Your task to perform on an android device: Open Wikipedia Image 0: 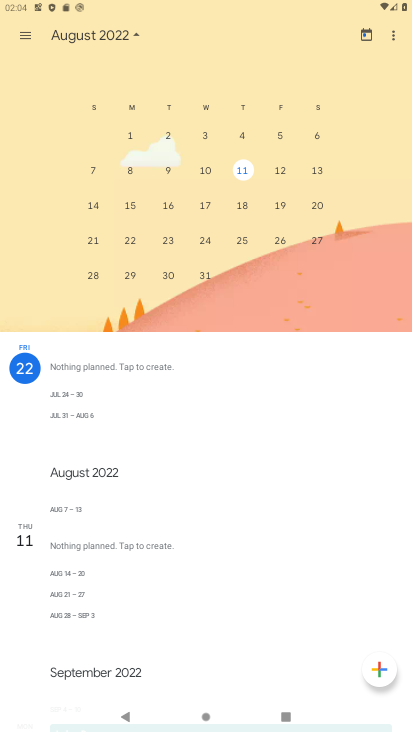
Step 0: press home button
Your task to perform on an android device: Open Wikipedia Image 1: 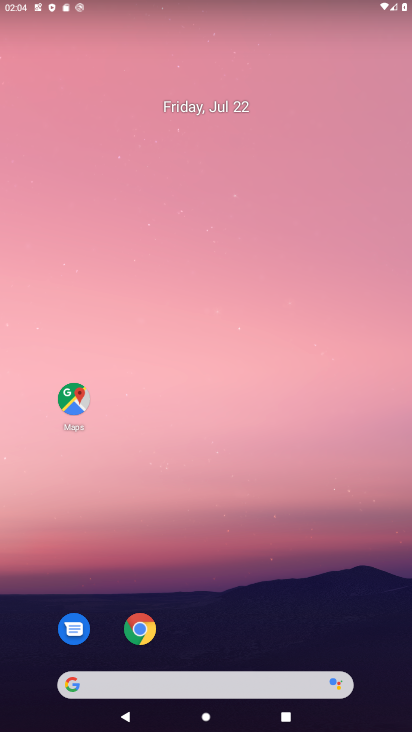
Step 1: click (140, 631)
Your task to perform on an android device: Open Wikipedia Image 2: 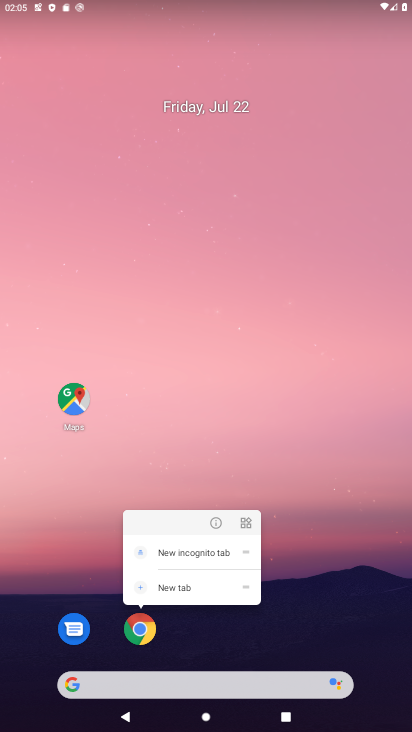
Step 2: click (141, 628)
Your task to perform on an android device: Open Wikipedia Image 3: 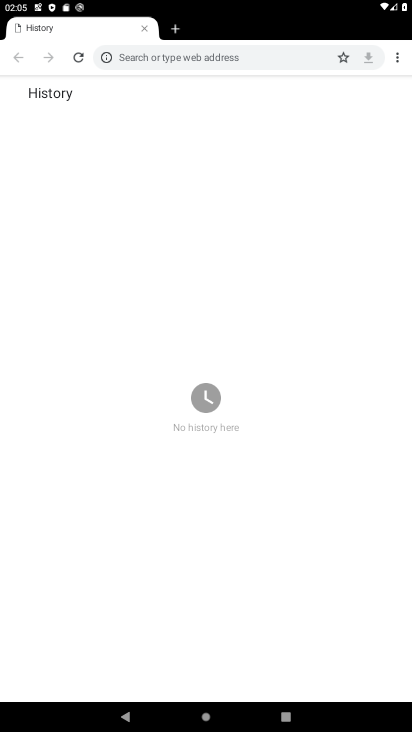
Step 3: click (178, 24)
Your task to perform on an android device: Open Wikipedia Image 4: 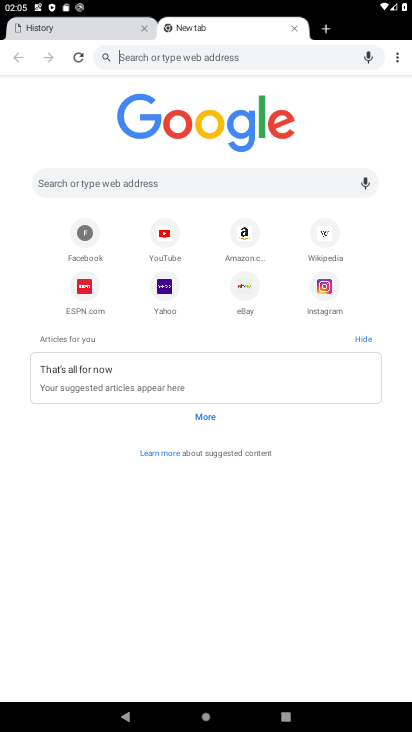
Step 4: click (147, 31)
Your task to perform on an android device: Open Wikipedia Image 5: 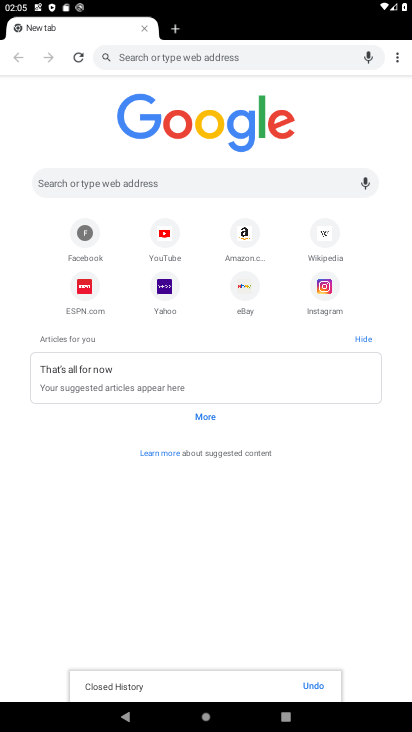
Step 5: click (318, 240)
Your task to perform on an android device: Open Wikipedia Image 6: 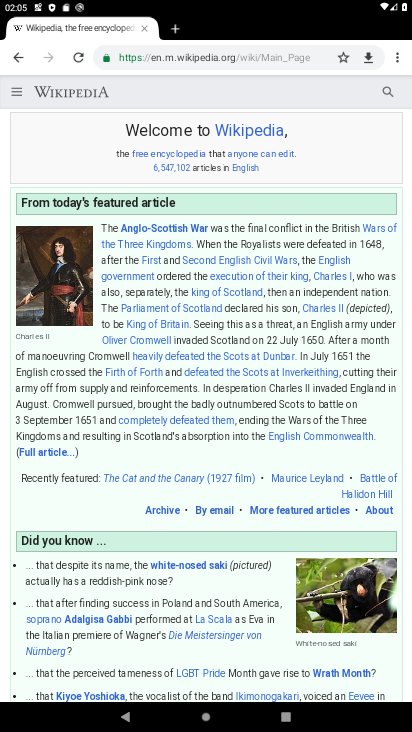
Step 6: task complete